Your task to perform on an android device: find which apps use the phone's location Image 0: 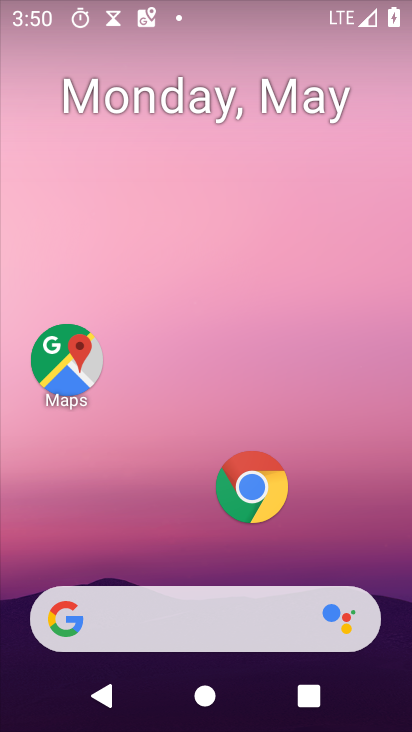
Step 0: drag from (160, 550) to (241, 133)
Your task to perform on an android device: find which apps use the phone's location Image 1: 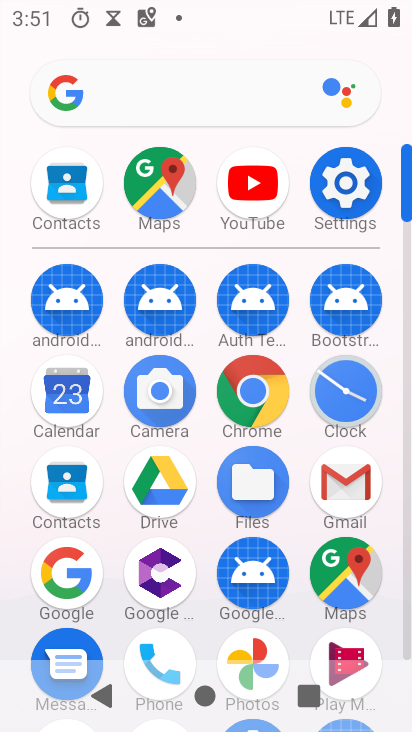
Step 1: click (349, 190)
Your task to perform on an android device: find which apps use the phone's location Image 2: 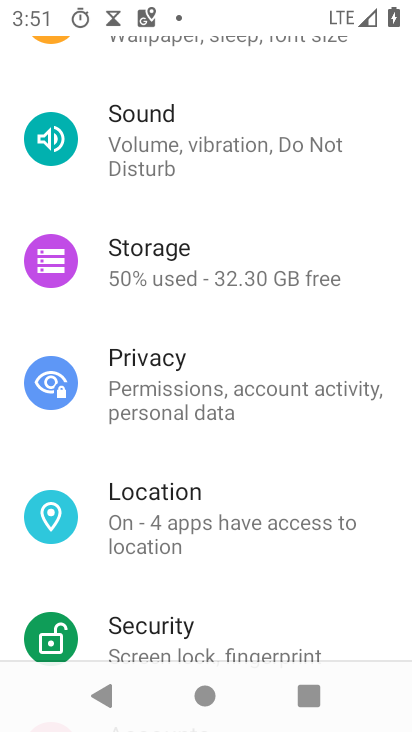
Step 2: click (149, 530)
Your task to perform on an android device: find which apps use the phone's location Image 3: 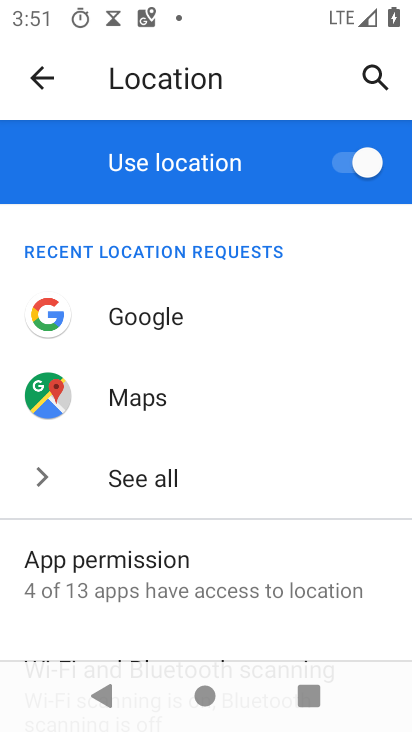
Step 3: click (169, 570)
Your task to perform on an android device: find which apps use the phone's location Image 4: 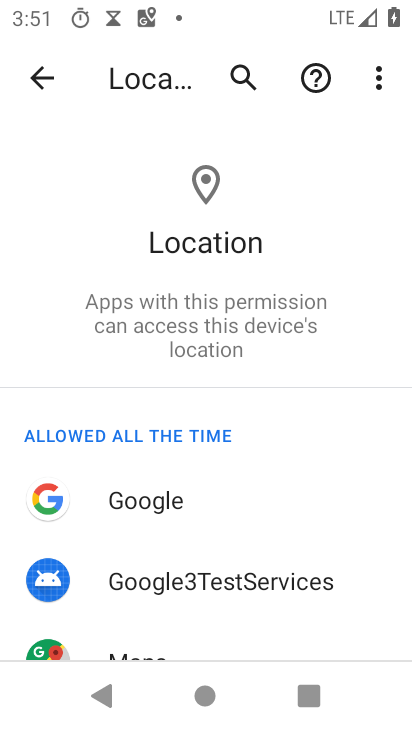
Step 4: task complete